Your task to perform on an android device: see creations saved in the google photos Image 0: 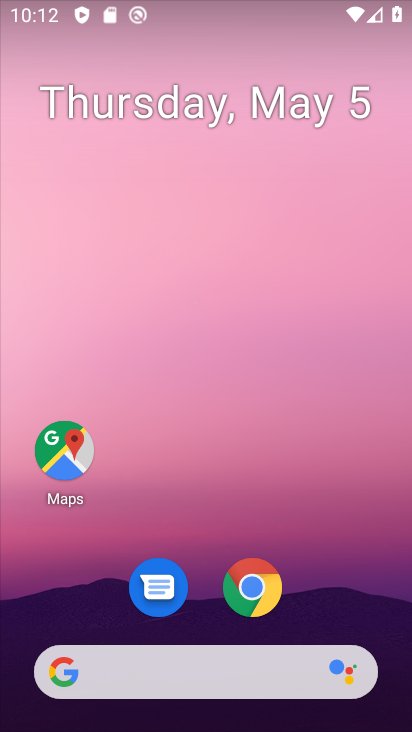
Step 0: drag from (331, 598) to (243, 34)
Your task to perform on an android device: see creations saved in the google photos Image 1: 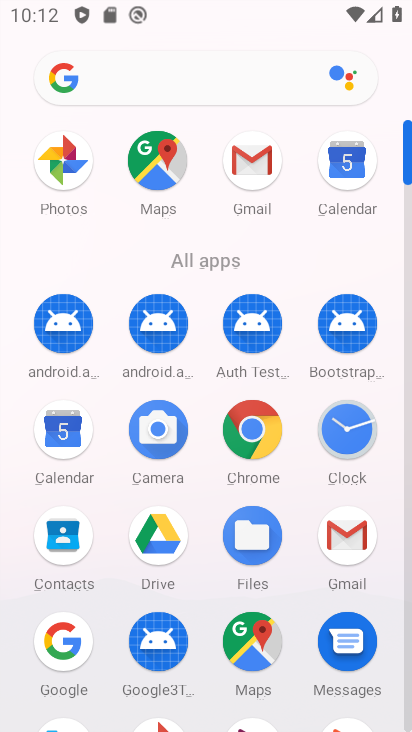
Step 1: drag from (19, 587) to (21, 279)
Your task to perform on an android device: see creations saved in the google photos Image 2: 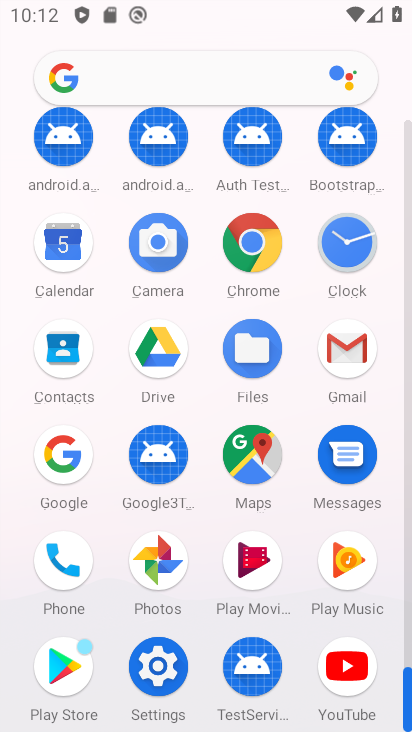
Step 2: click (156, 558)
Your task to perform on an android device: see creations saved in the google photos Image 3: 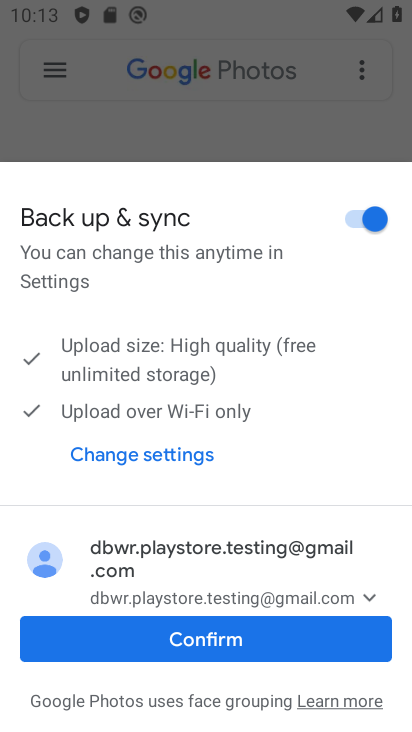
Step 3: click (151, 638)
Your task to perform on an android device: see creations saved in the google photos Image 4: 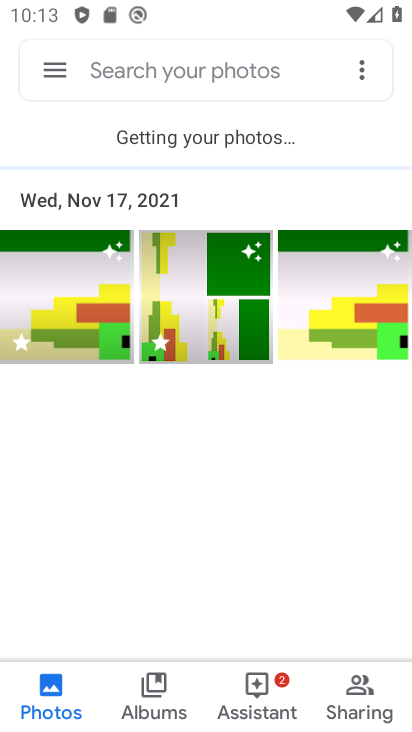
Step 4: task complete